Your task to perform on an android device: What's the weather today? Image 0: 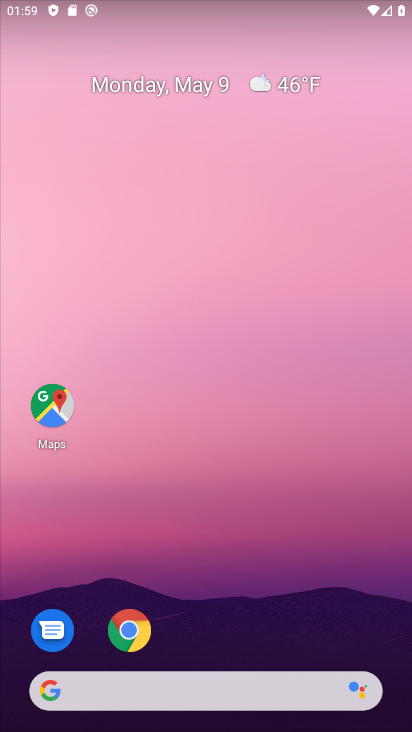
Step 0: drag from (312, 583) to (300, 34)
Your task to perform on an android device: What's the weather today? Image 1: 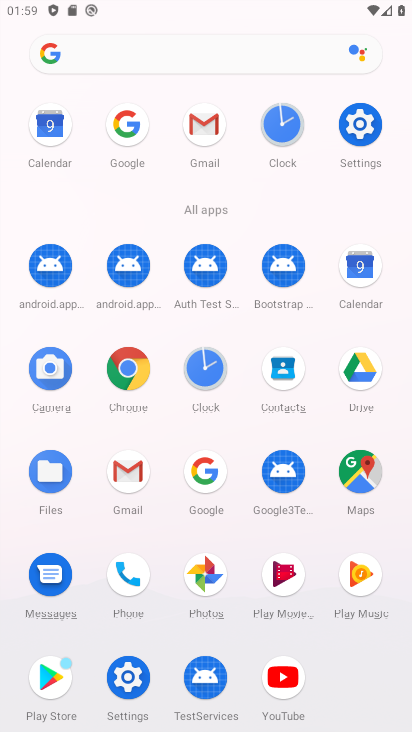
Step 1: click (201, 469)
Your task to perform on an android device: What's the weather today? Image 2: 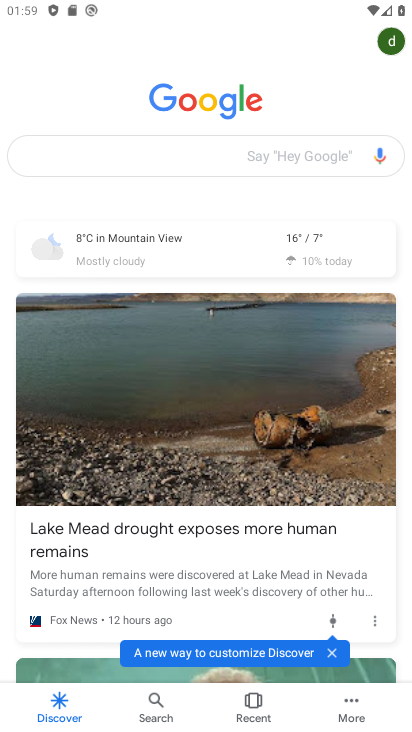
Step 2: click (294, 161)
Your task to perform on an android device: What's the weather today? Image 3: 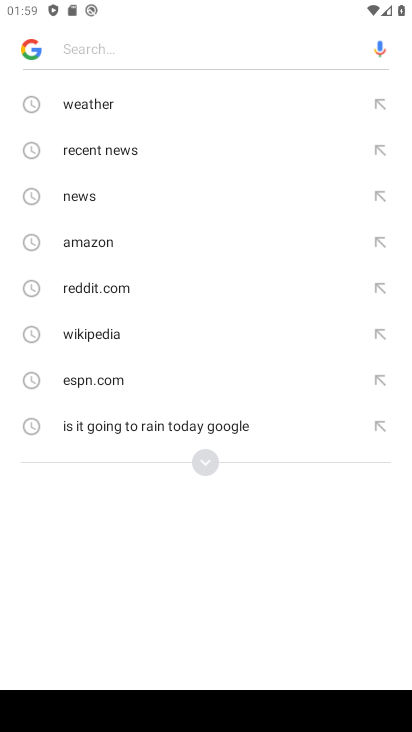
Step 3: click (80, 96)
Your task to perform on an android device: What's the weather today? Image 4: 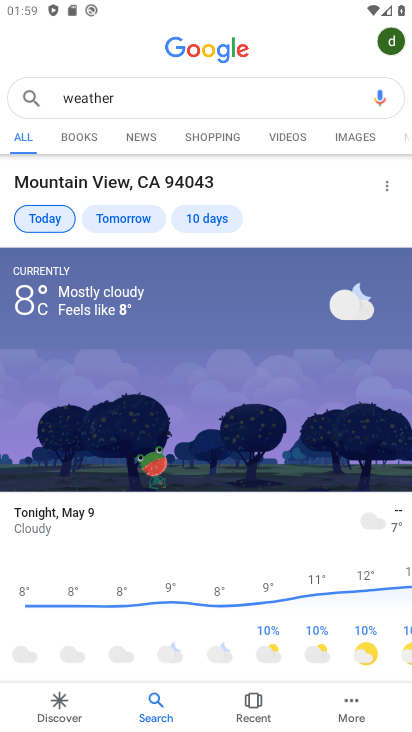
Step 4: task complete